Your task to perform on an android device: empty trash in google photos Image 0: 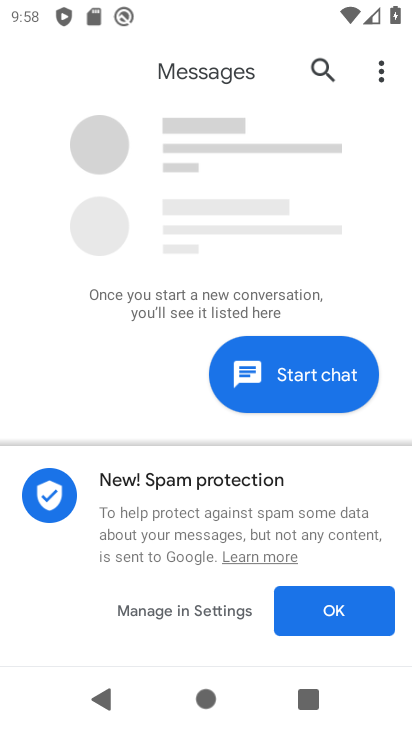
Step 0: press back button
Your task to perform on an android device: empty trash in google photos Image 1: 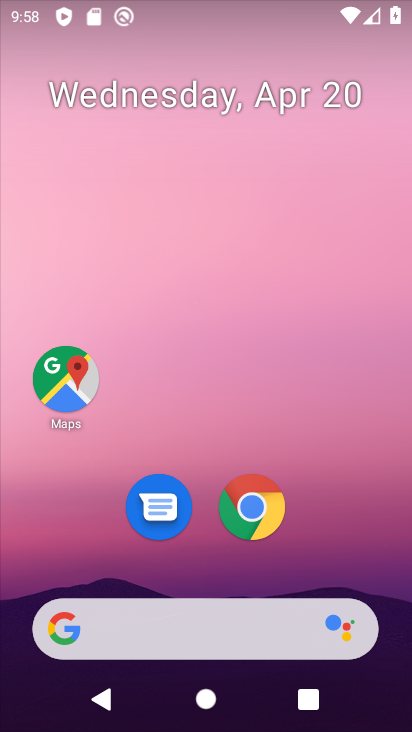
Step 1: drag from (183, 580) to (153, 119)
Your task to perform on an android device: empty trash in google photos Image 2: 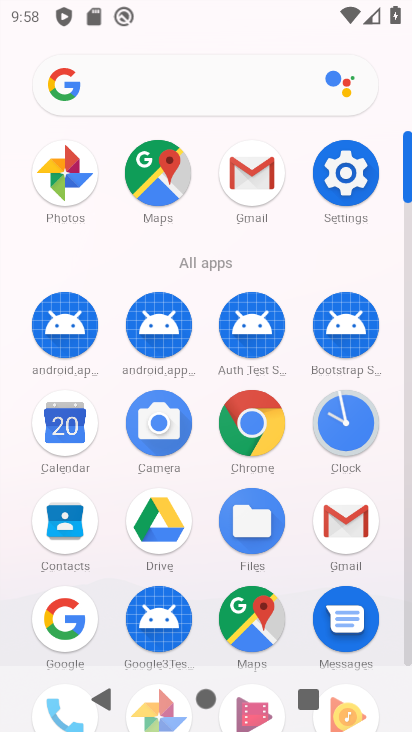
Step 2: drag from (191, 602) to (182, 255)
Your task to perform on an android device: empty trash in google photos Image 3: 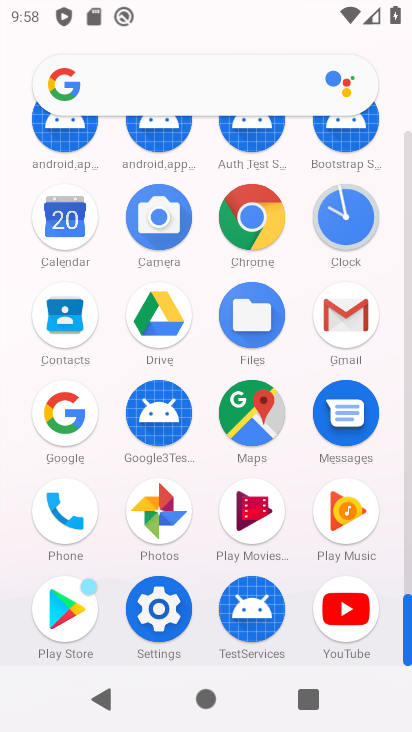
Step 3: click (180, 507)
Your task to perform on an android device: empty trash in google photos Image 4: 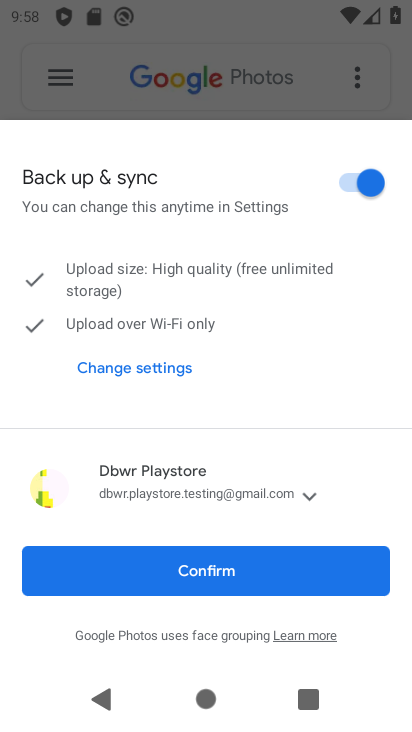
Step 4: click (155, 564)
Your task to perform on an android device: empty trash in google photos Image 5: 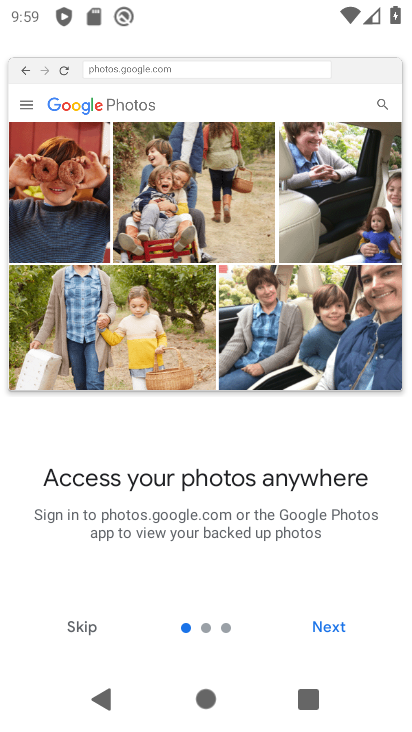
Step 5: click (80, 627)
Your task to perform on an android device: empty trash in google photos Image 6: 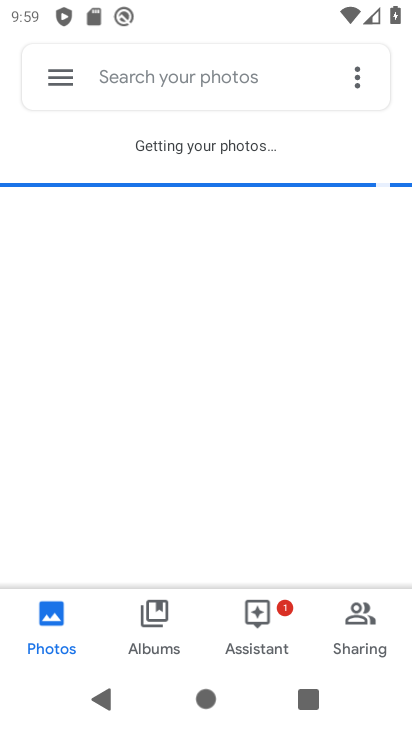
Step 6: click (66, 82)
Your task to perform on an android device: empty trash in google photos Image 7: 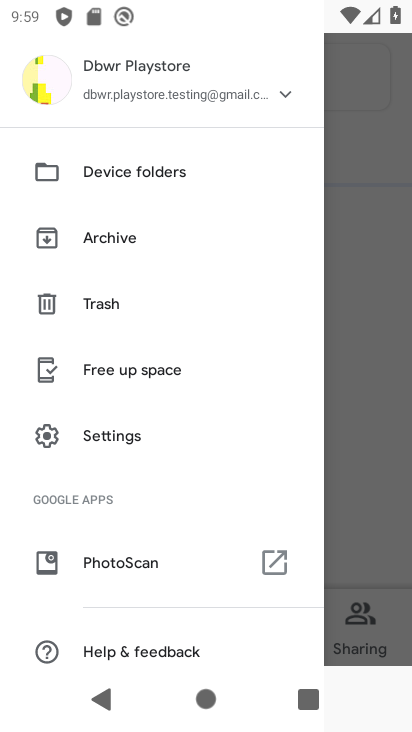
Step 7: click (86, 303)
Your task to perform on an android device: empty trash in google photos Image 8: 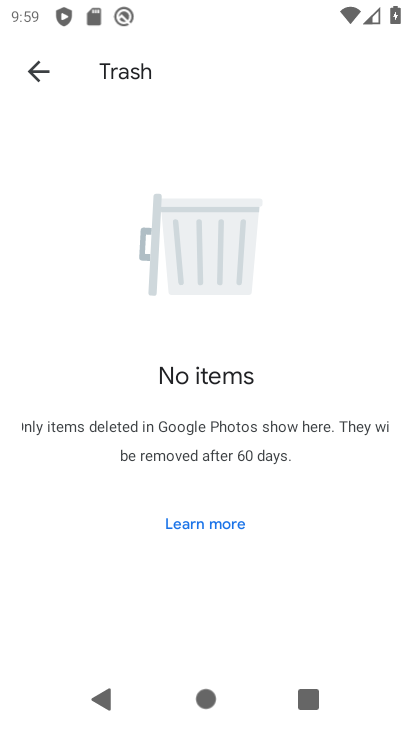
Step 8: task complete